Your task to perform on an android device: Open Google Maps and go to "Timeline" Image 0: 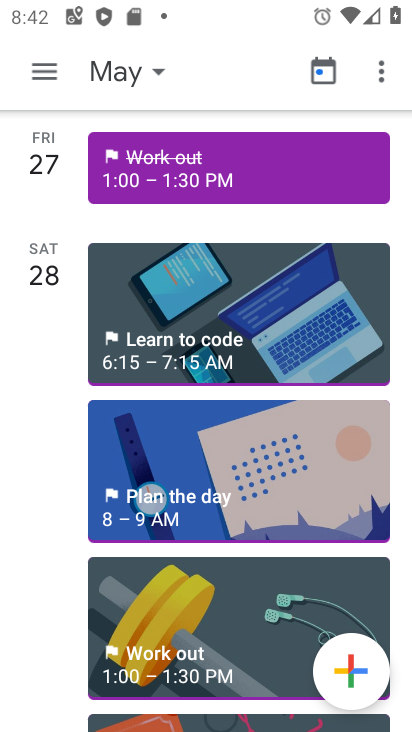
Step 0: press home button
Your task to perform on an android device: Open Google Maps and go to "Timeline" Image 1: 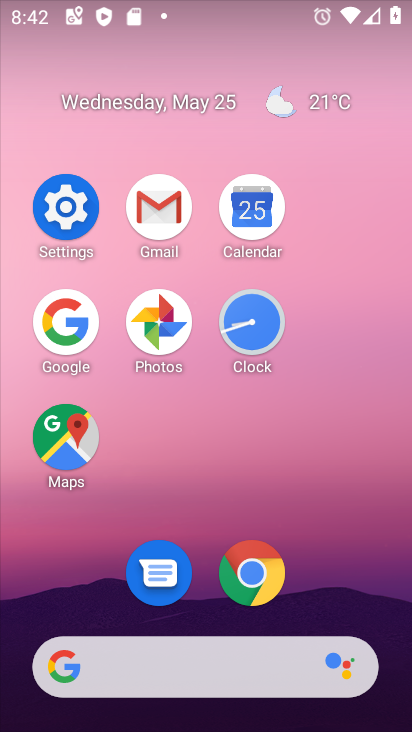
Step 1: click (74, 419)
Your task to perform on an android device: Open Google Maps and go to "Timeline" Image 2: 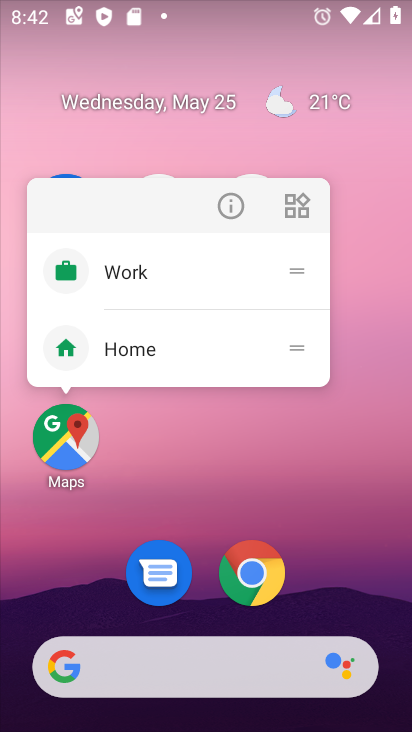
Step 2: click (71, 422)
Your task to perform on an android device: Open Google Maps and go to "Timeline" Image 3: 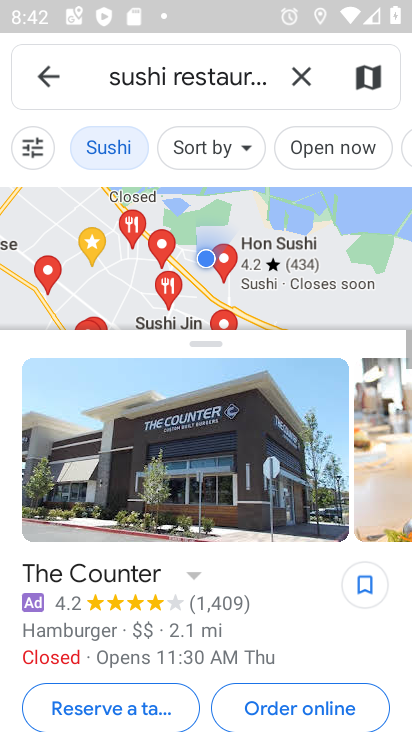
Step 3: click (29, 81)
Your task to perform on an android device: Open Google Maps and go to "Timeline" Image 4: 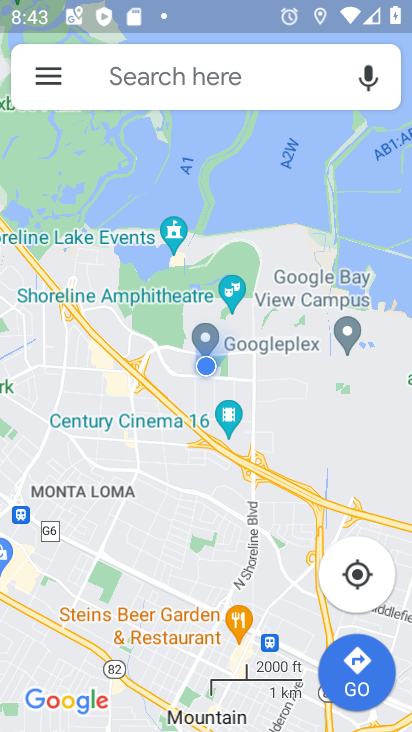
Step 4: click (29, 81)
Your task to perform on an android device: Open Google Maps and go to "Timeline" Image 5: 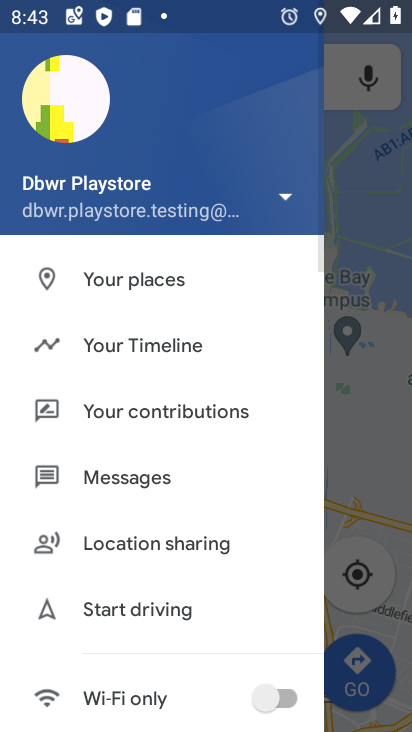
Step 5: click (152, 350)
Your task to perform on an android device: Open Google Maps and go to "Timeline" Image 6: 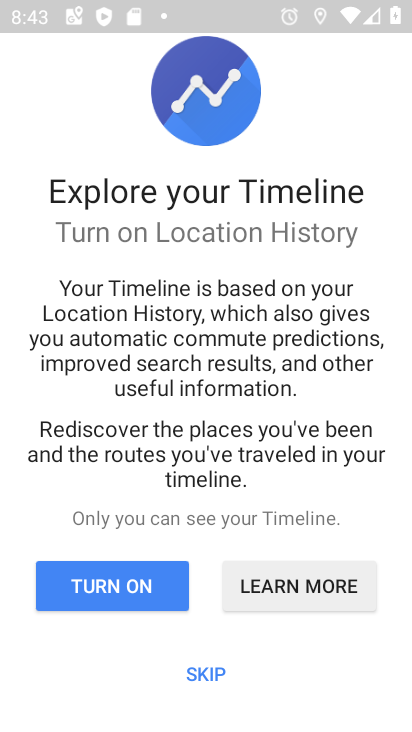
Step 6: click (164, 584)
Your task to perform on an android device: Open Google Maps and go to "Timeline" Image 7: 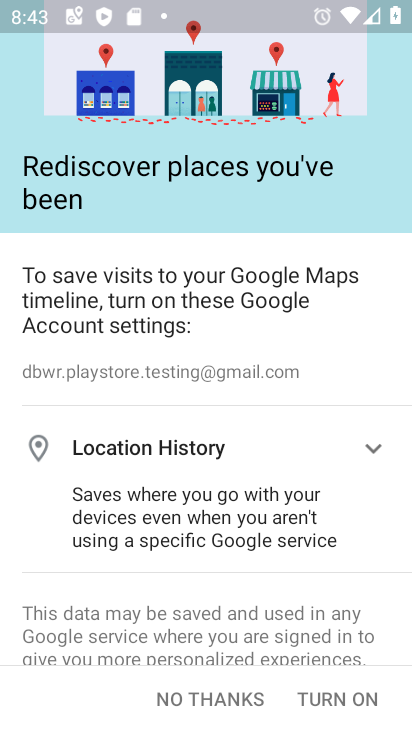
Step 7: click (345, 689)
Your task to perform on an android device: Open Google Maps and go to "Timeline" Image 8: 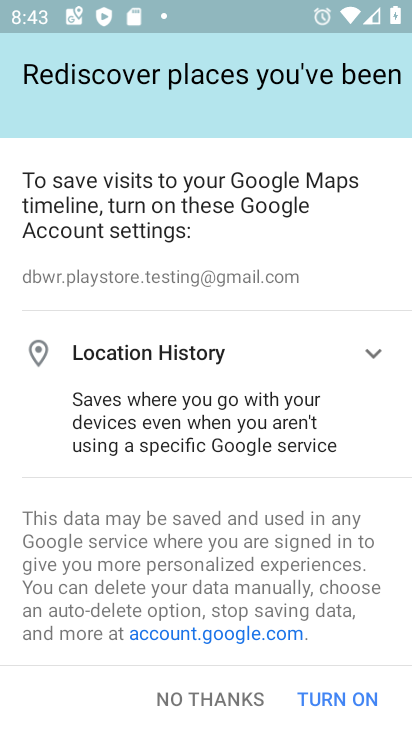
Step 8: click (314, 695)
Your task to perform on an android device: Open Google Maps and go to "Timeline" Image 9: 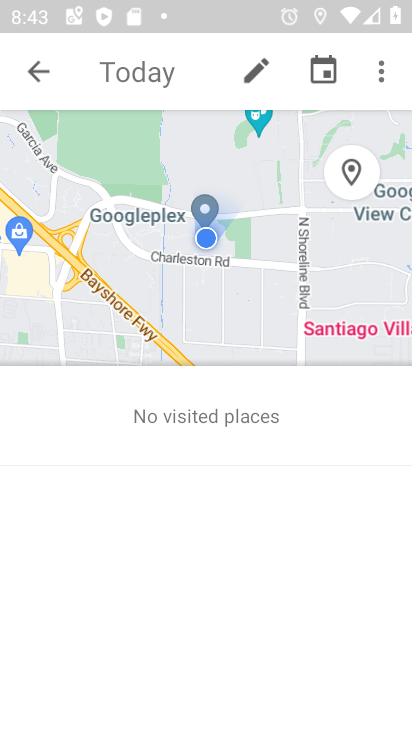
Step 9: task complete